Your task to perform on an android device: refresh tabs in the chrome app Image 0: 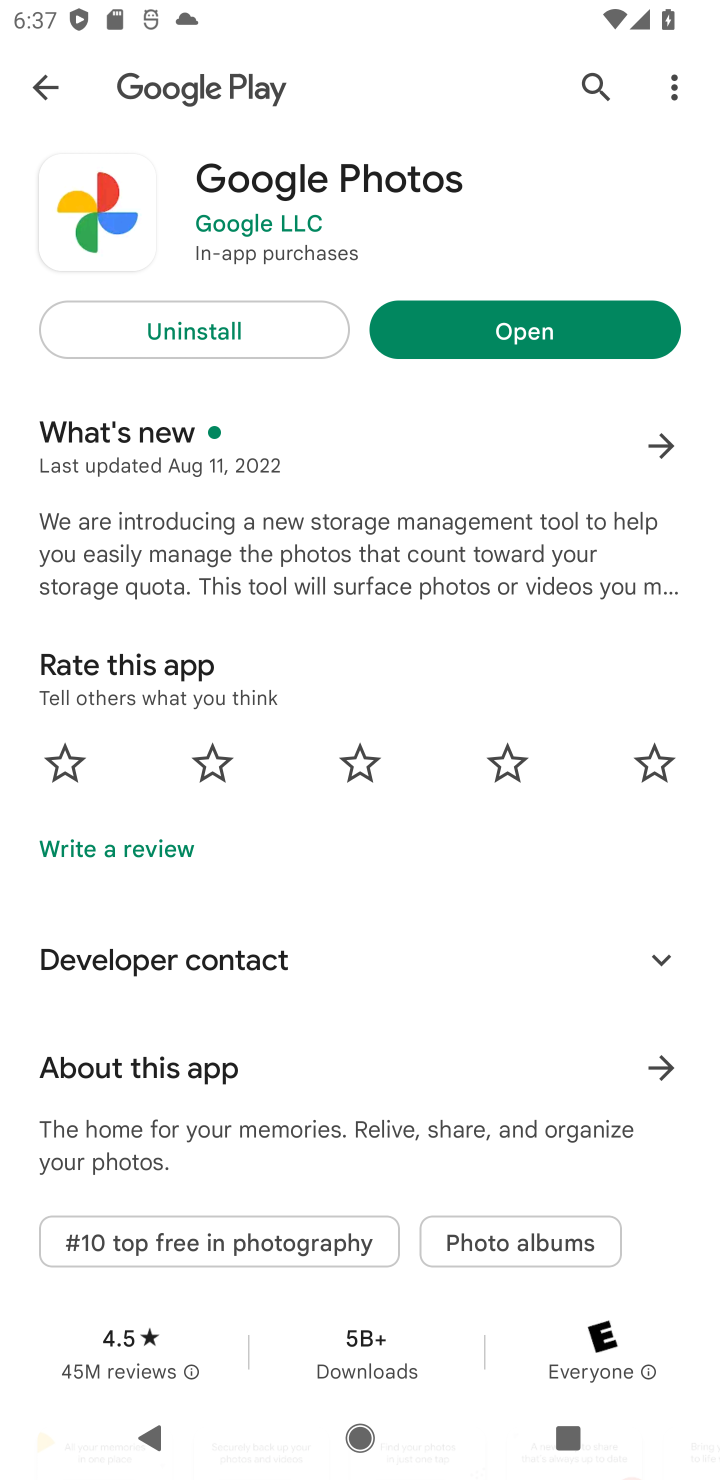
Step 0: press home button
Your task to perform on an android device: refresh tabs in the chrome app Image 1: 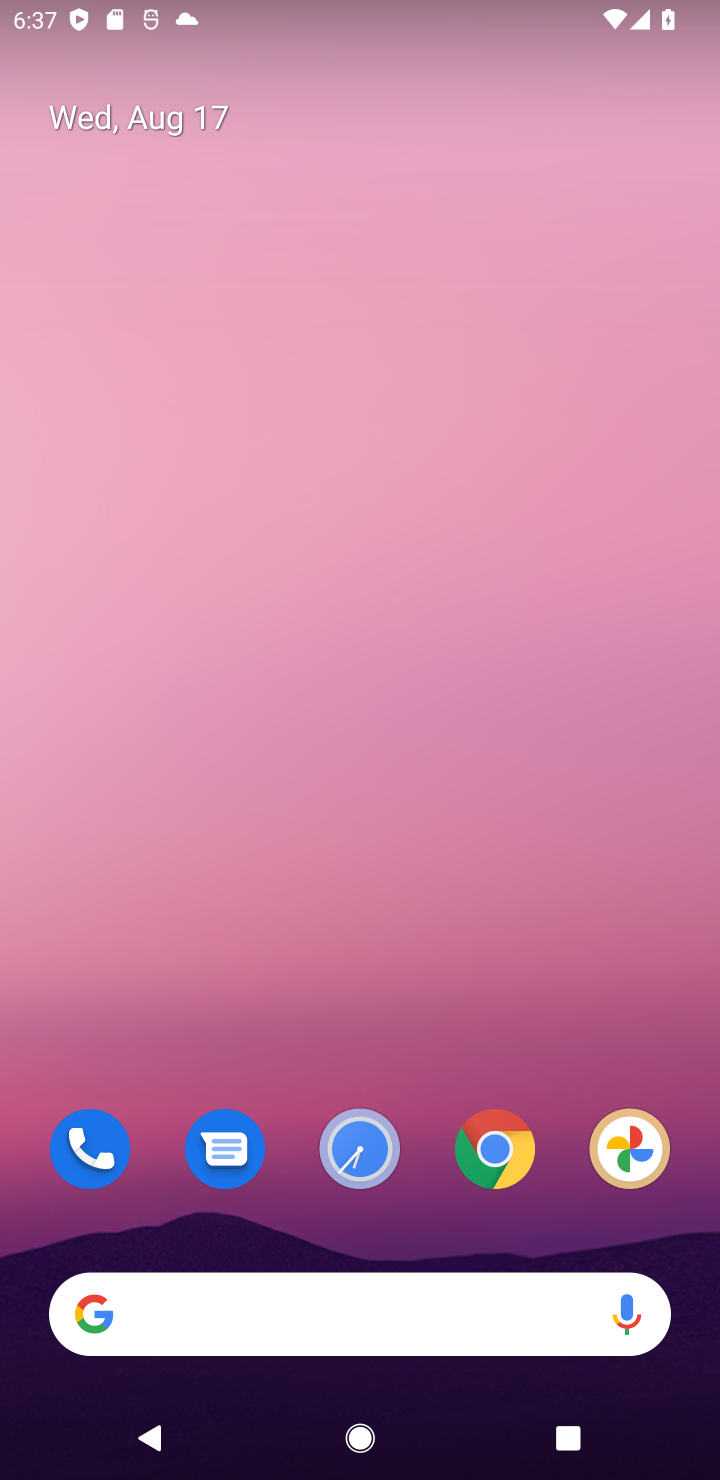
Step 1: click (503, 1150)
Your task to perform on an android device: refresh tabs in the chrome app Image 2: 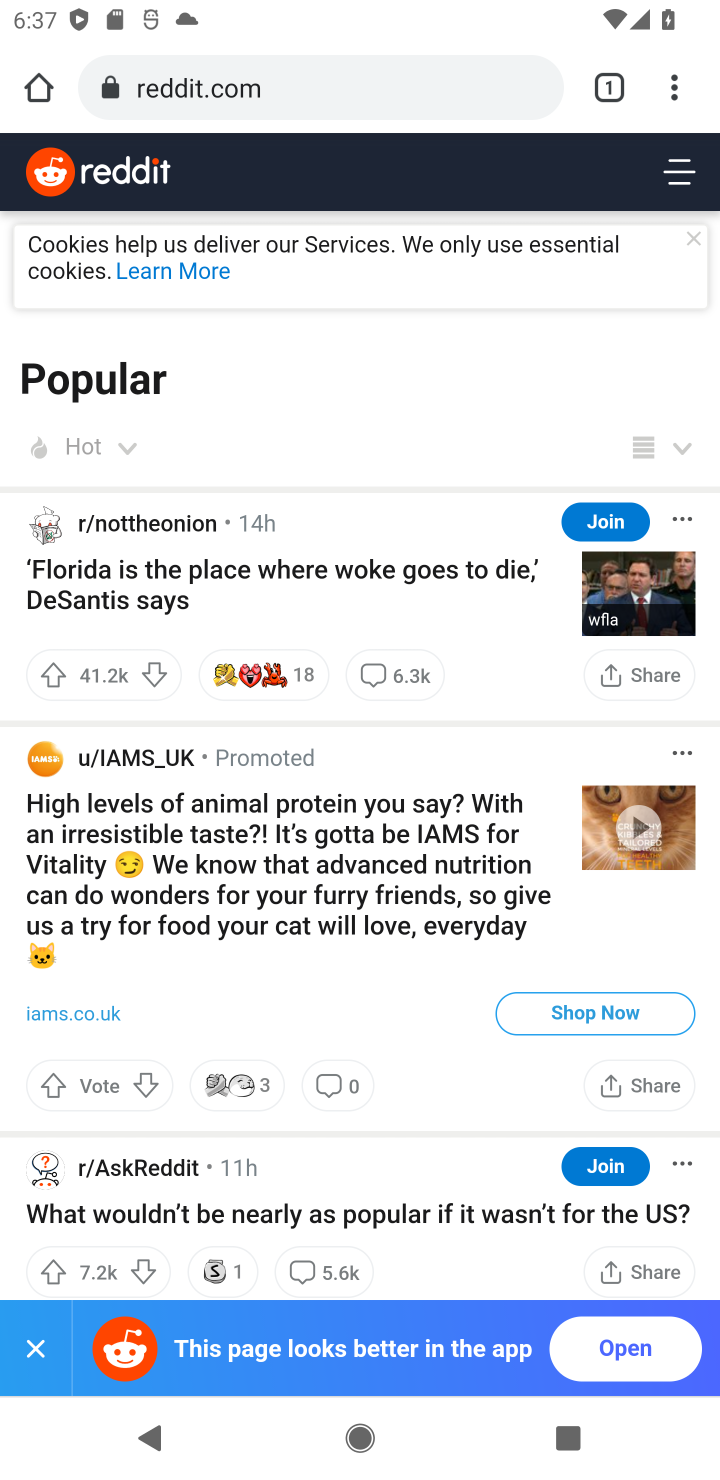
Step 2: click (677, 95)
Your task to perform on an android device: refresh tabs in the chrome app Image 3: 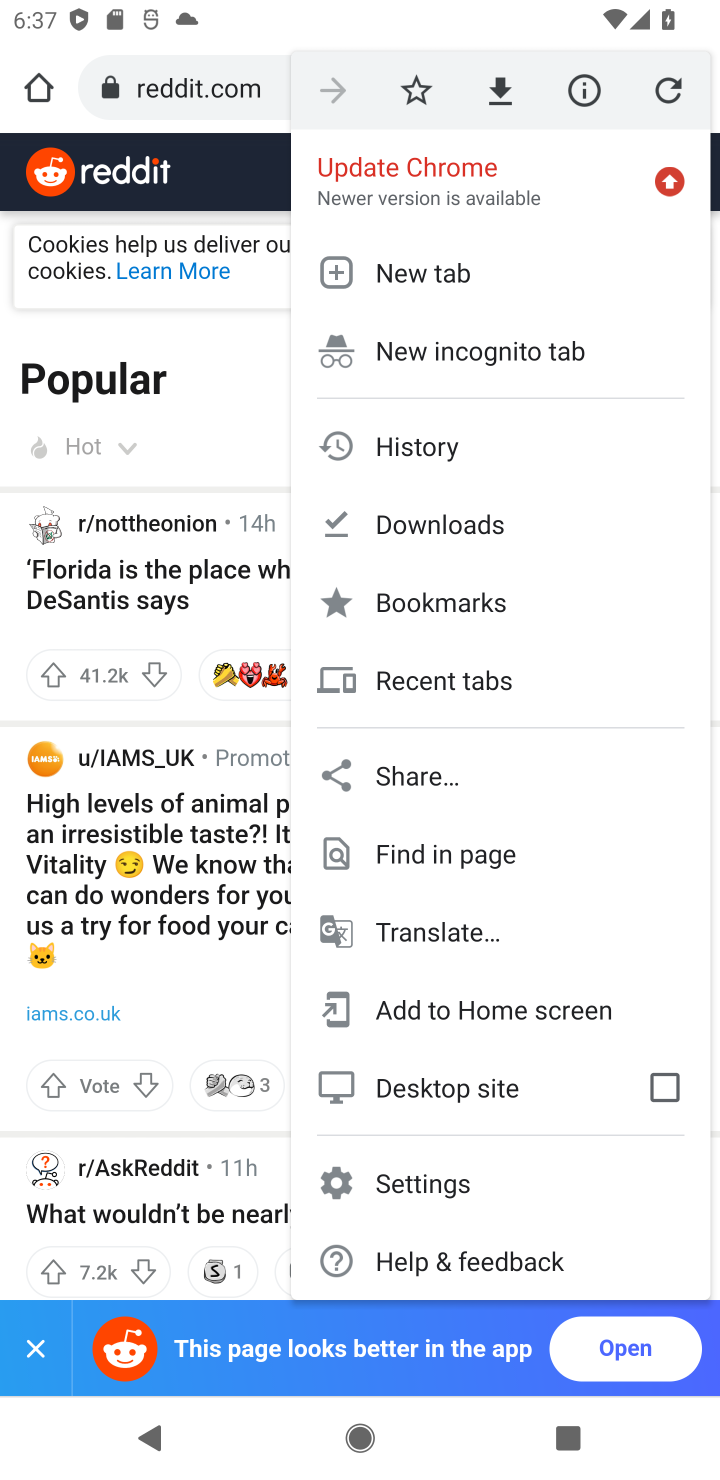
Step 3: click (665, 89)
Your task to perform on an android device: refresh tabs in the chrome app Image 4: 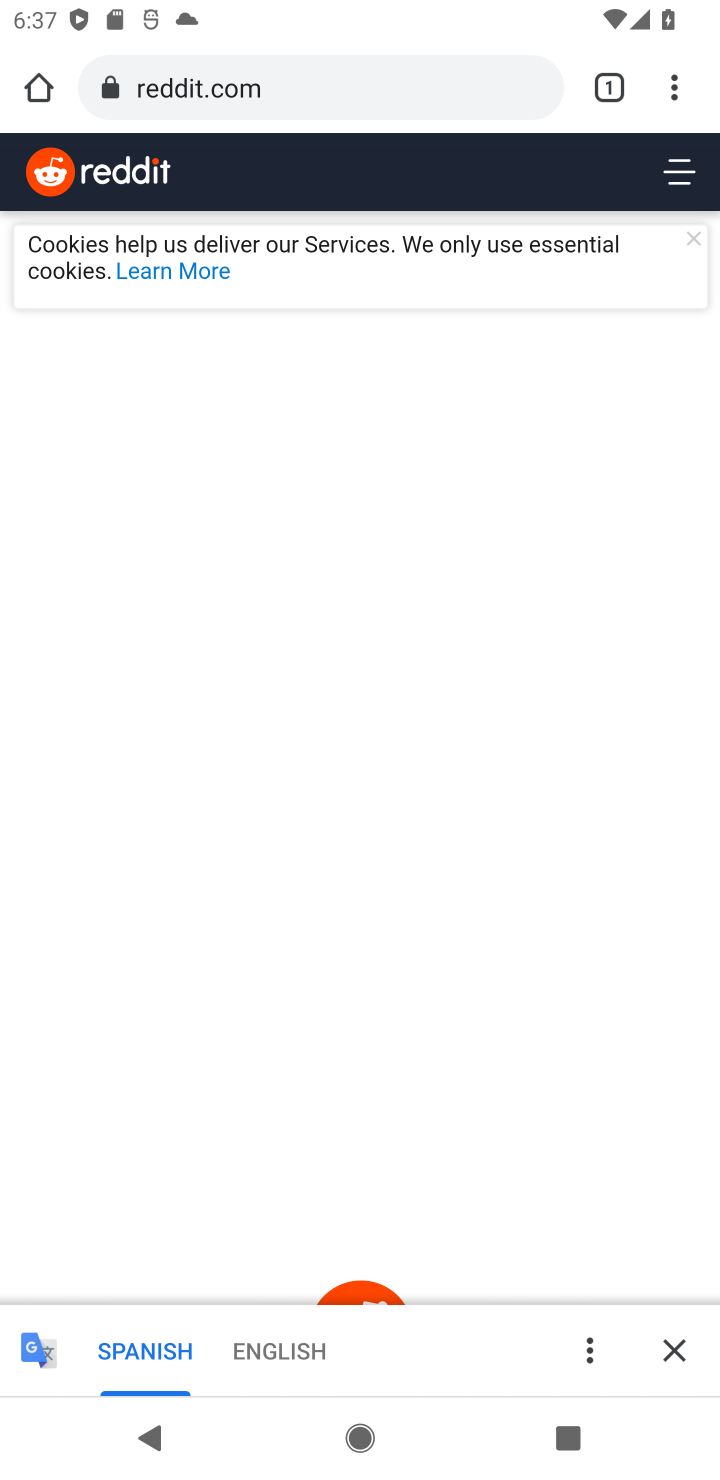
Step 4: task complete